Your task to perform on an android device: open wifi settings Image 0: 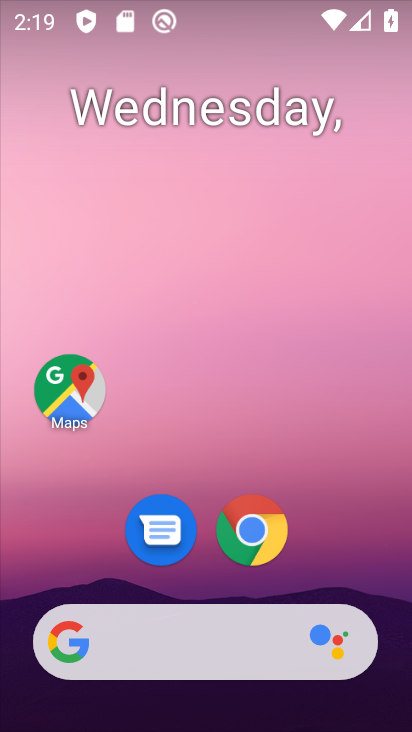
Step 0: drag from (168, 644) to (142, 192)
Your task to perform on an android device: open wifi settings Image 1: 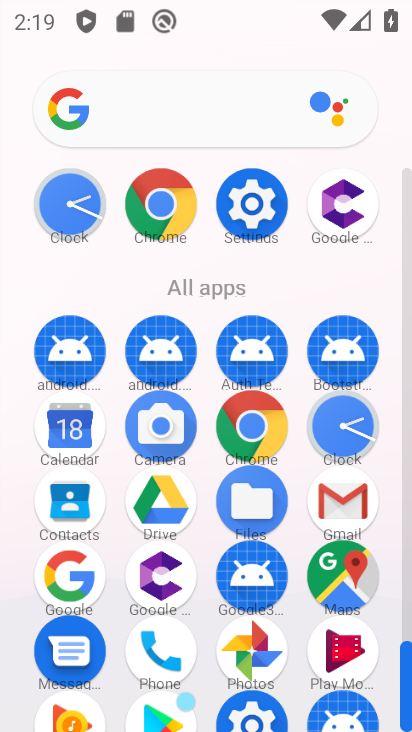
Step 1: click (261, 213)
Your task to perform on an android device: open wifi settings Image 2: 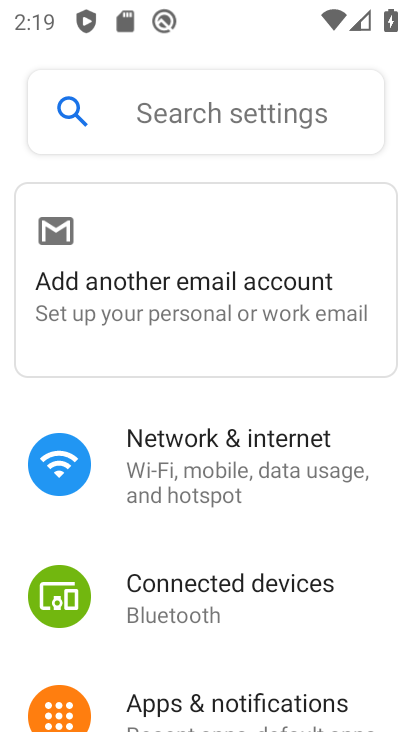
Step 2: click (274, 452)
Your task to perform on an android device: open wifi settings Image 3: 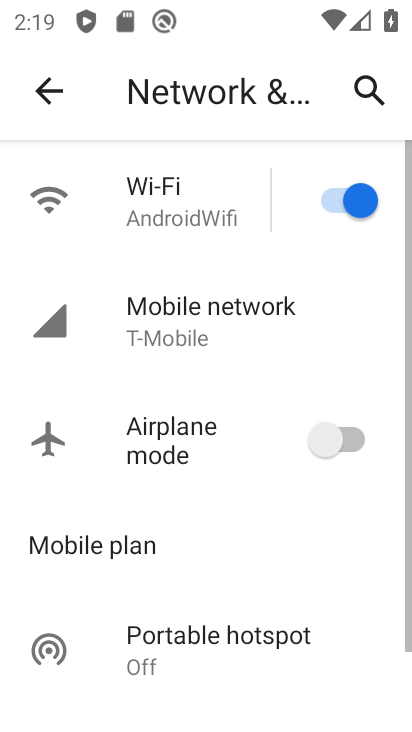
Step 3: click (148, 229)
Your task to perform on an android device: open wifi settings Image 4: 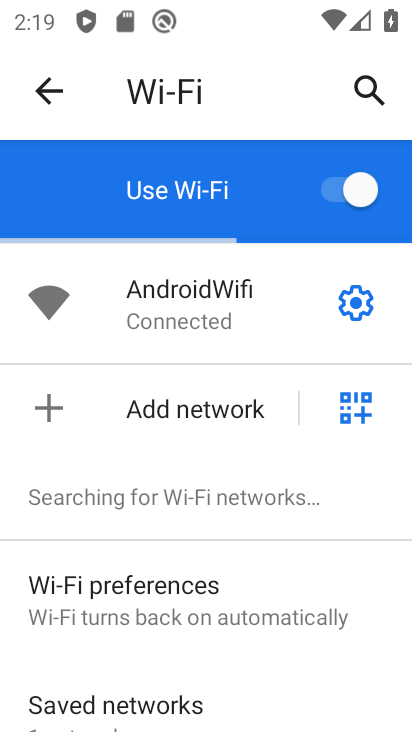
Step 4: task complete